Your task to perform on an android device: open chrome privacy settings Image 0: 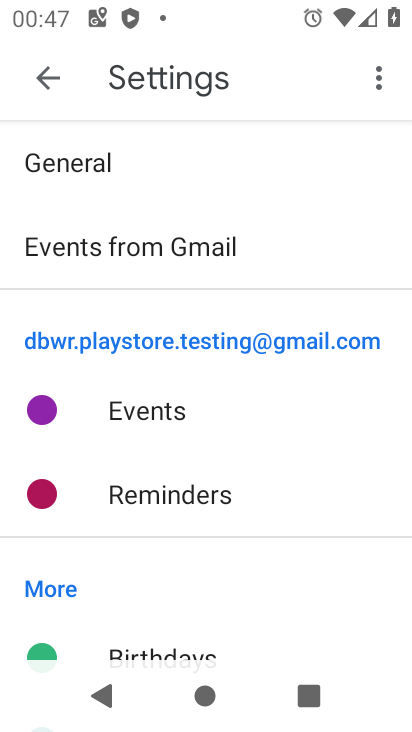
Step 0: press home button
Your task to perform on an android device: open chrome privacy settings Image 1: 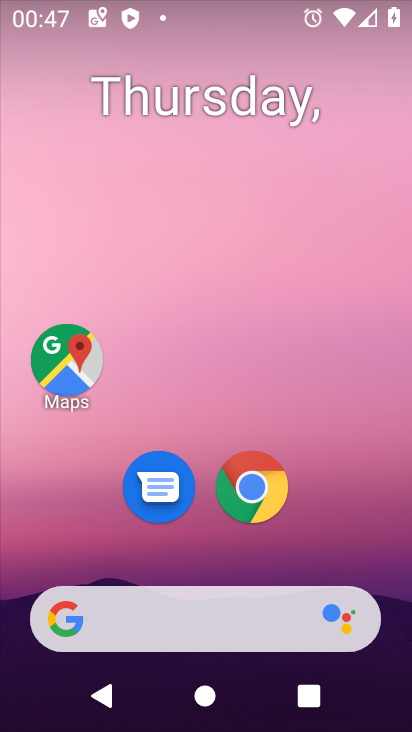
Step 1: click (249, 495)
Your task to perform on an android device: open chrome privacy settings Image 2: 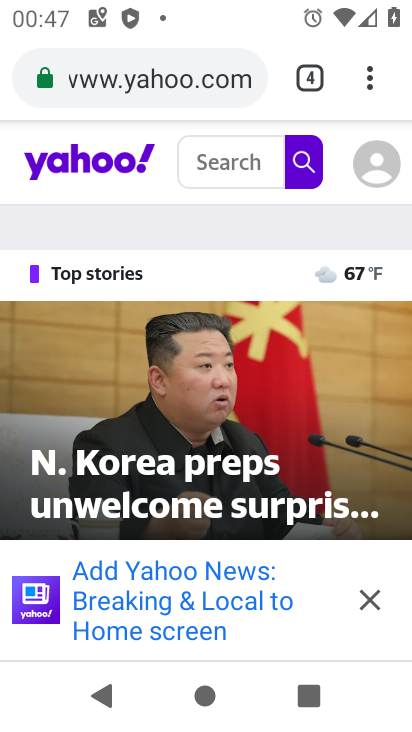
Step 2: click (369, 82)
Your task to perform on an android device: open chrome privacy settings Image 3: 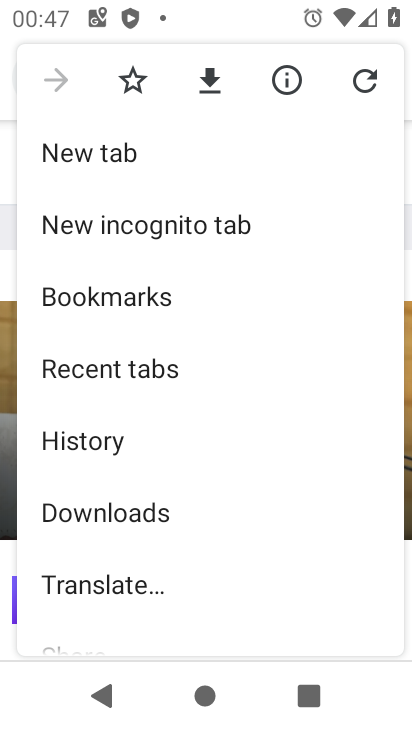
Step 3: drag from (204, 547) to (151, 130)
Your task to perform on an android device: open chrome privacy settings Image 4: 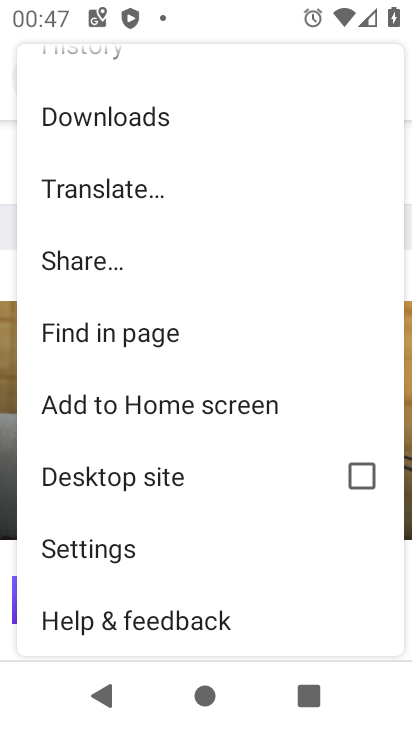
Step 4: click (104, 558)
Your task to perform on an android device: open chrome privacy settings Image 5: 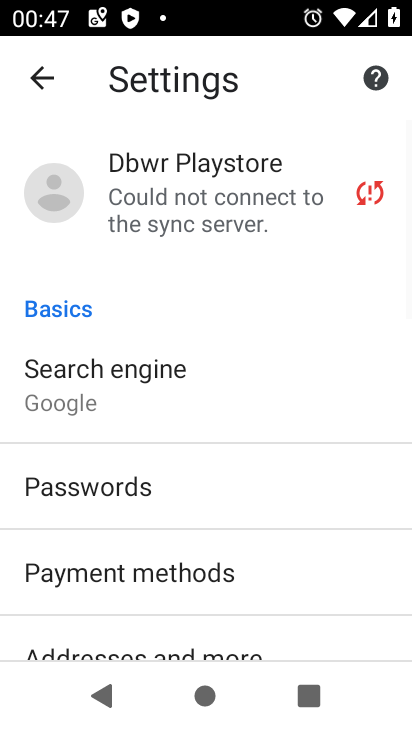
Step 5: drag from (185, 545) to (162, 122)
Your task to perform on an android device: open chrome privacy settings Image 6: 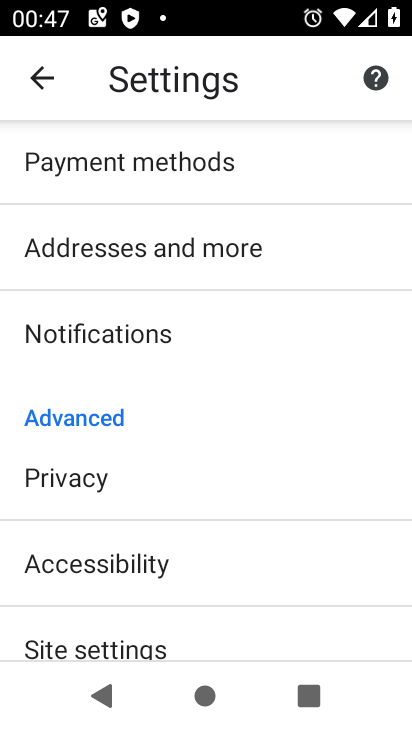
Step 6: click (96, 499)
Your task to perform on an android device: open chrome privacy settings Image 7: 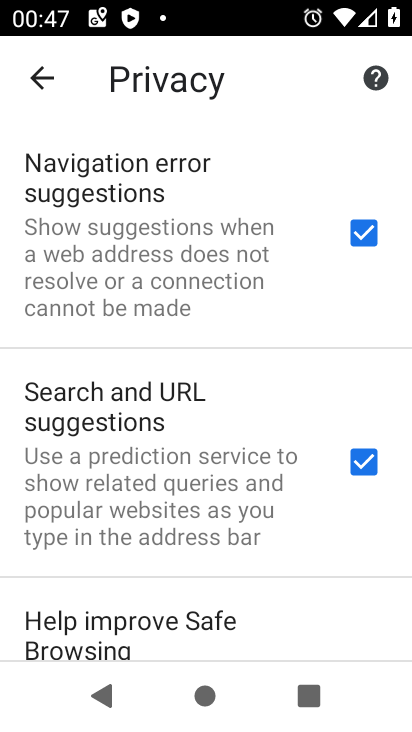
Step 7: task complete